Your task to perform on an android device: Go to privacy settings Image 0: 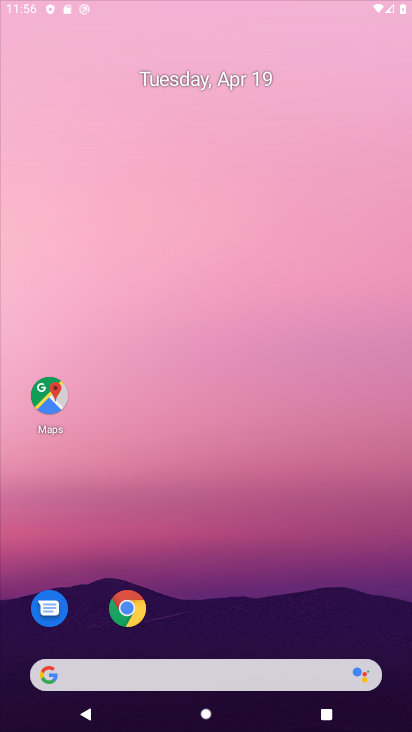
Step 0: click (276, 87)
Your task to perform on an android device: Go to privacy settings Image 1: 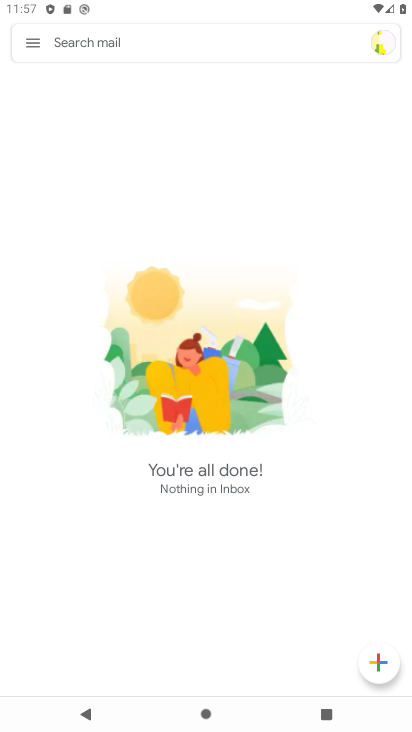
Step 1: press home button
Your task to perform on an android device: Go to privacy settings Image 2: 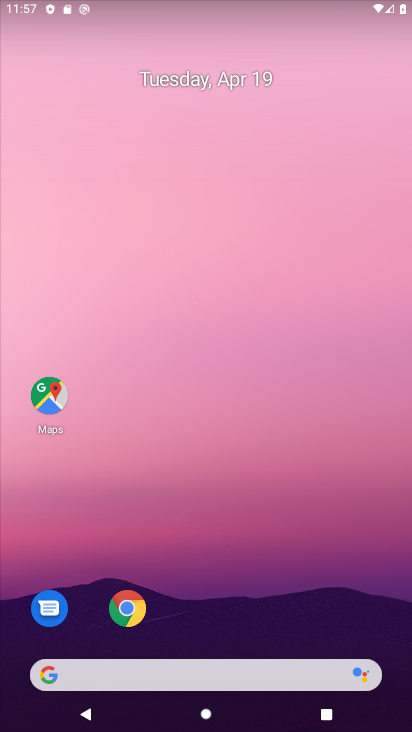
Step 2: drag from (221, 560) to (211, 51)
Your task to perform on an android device: Go to privacy settings Image 3: 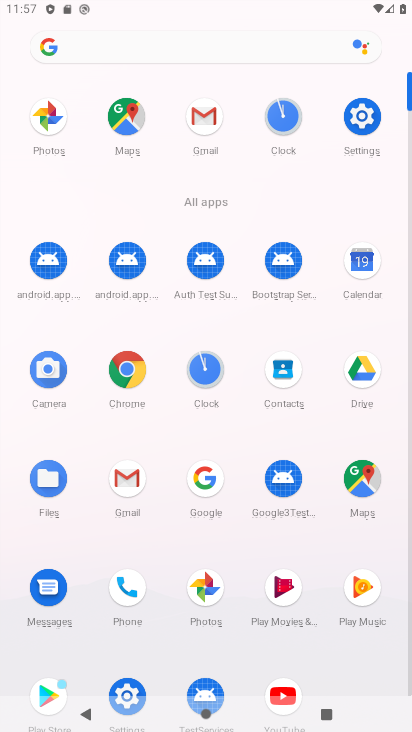
Step 3: click (356, 119)
Your task to perform on an android device: Go to privacy settings Image 4: 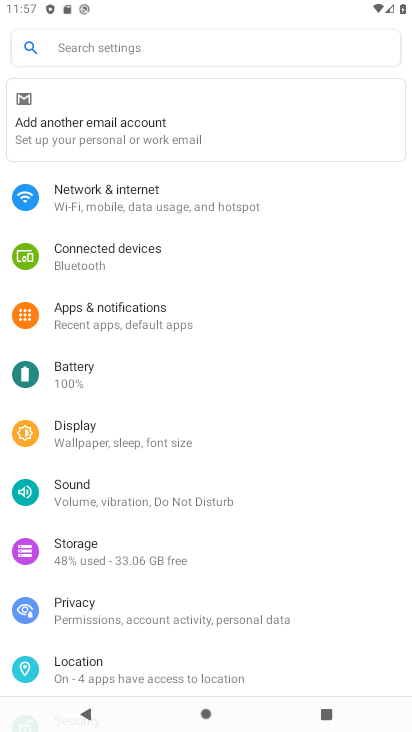
Step 4: click (113, 609)
Your task to perform on an android device: Go to privacy settings Image 5: 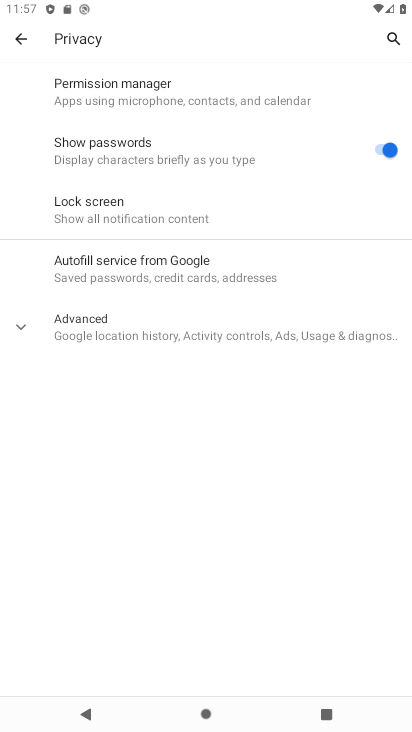
Step 5: task complete